Your task to perform on an android device: delete a single message in the gmail app Image 0: 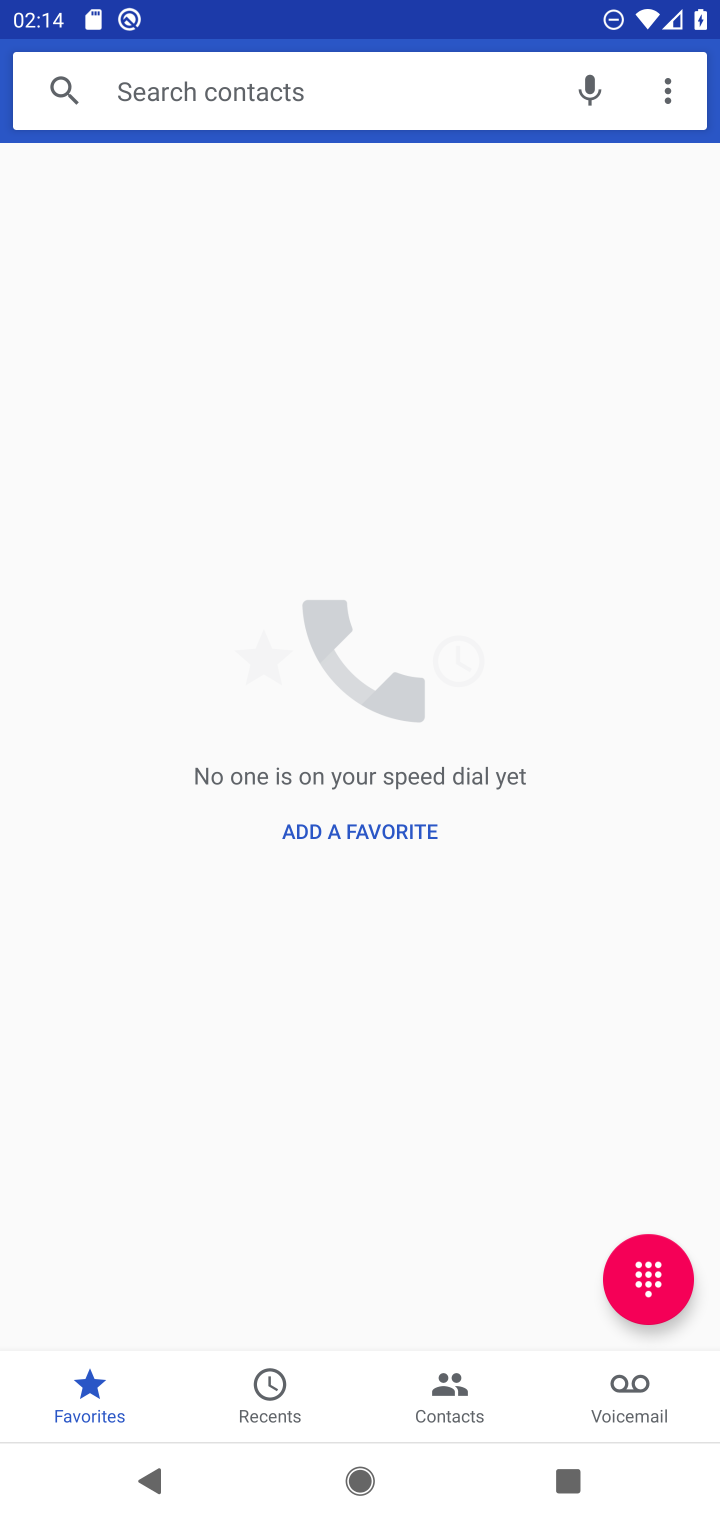
Step 0: press home button
Your task to perform on an android device: delete a single message in the gmail app Image 1: 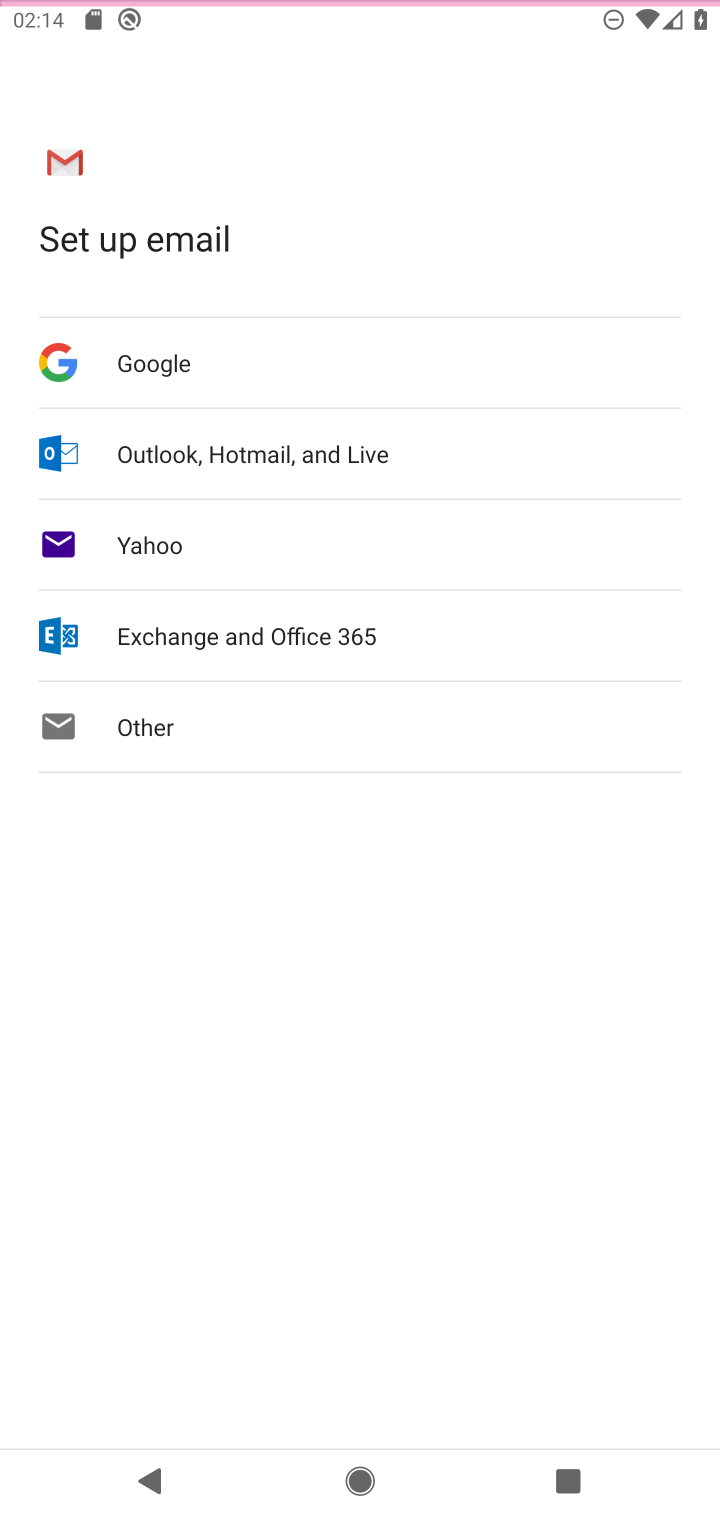
Step 1: press home button
Your task to perform on an android device: delete a single message in the gmail app Image 2: 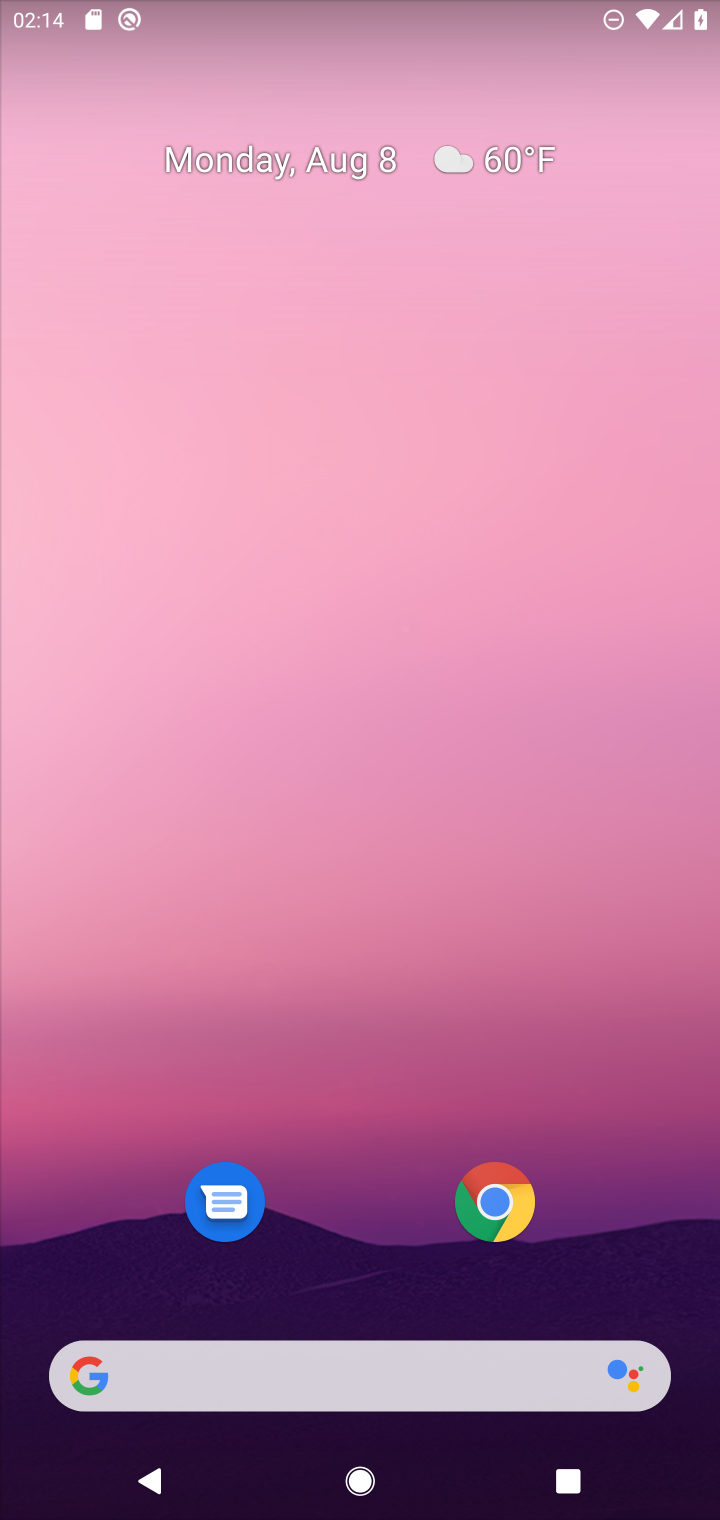
Step 2: drag from (636, 1088) to (657, 257)
Your task to perform on an android device: delete a single message in the gmail app Image 3: 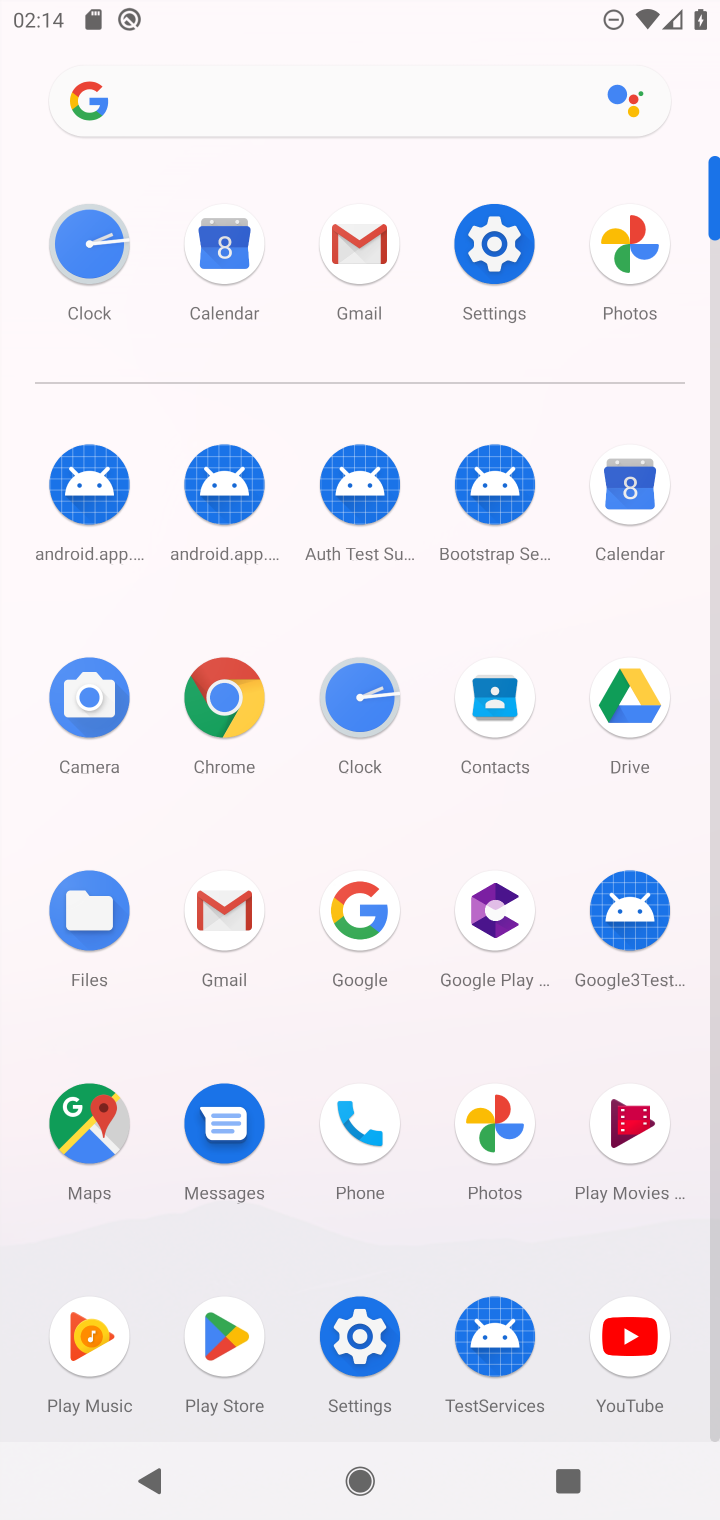
Step 3: click (227, 927)
Your task to perform on an android device: delete a single message in the gmail app Image 4: 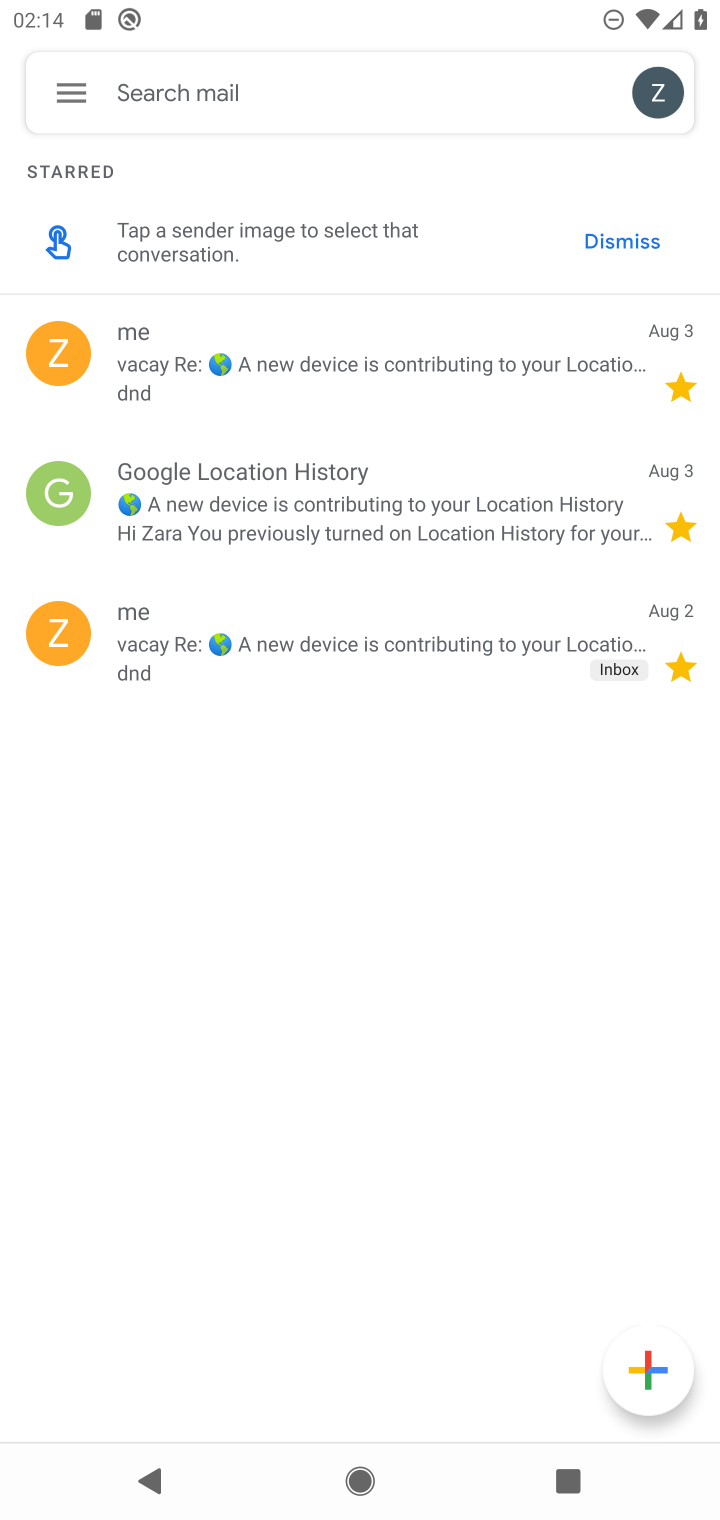
Step 4: click (403, 323)
Your task to perform on an android device: delete a single message in the gmail app Image 5: 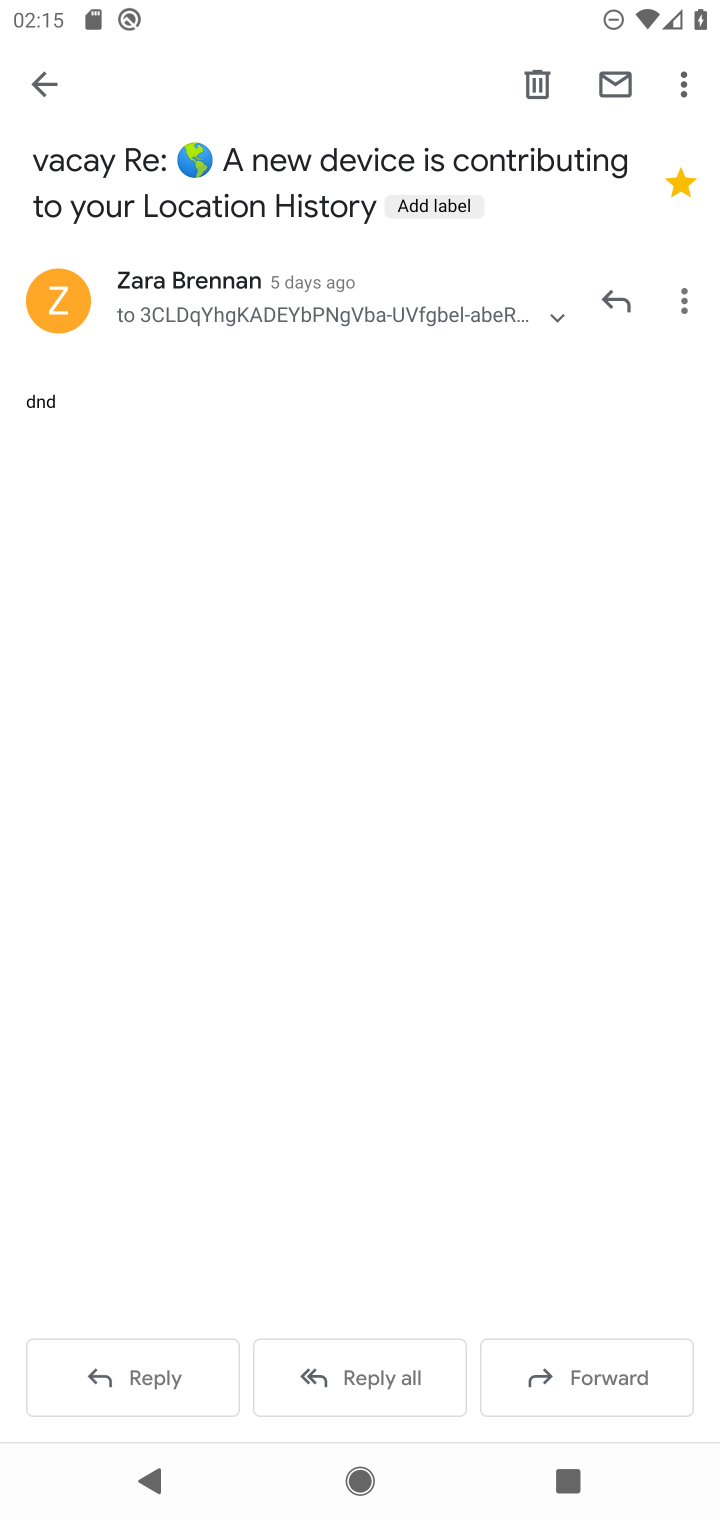
Step 5: click (534, 75)
Your task to perform on an android device: delete a single message in the gmail app Image 6: 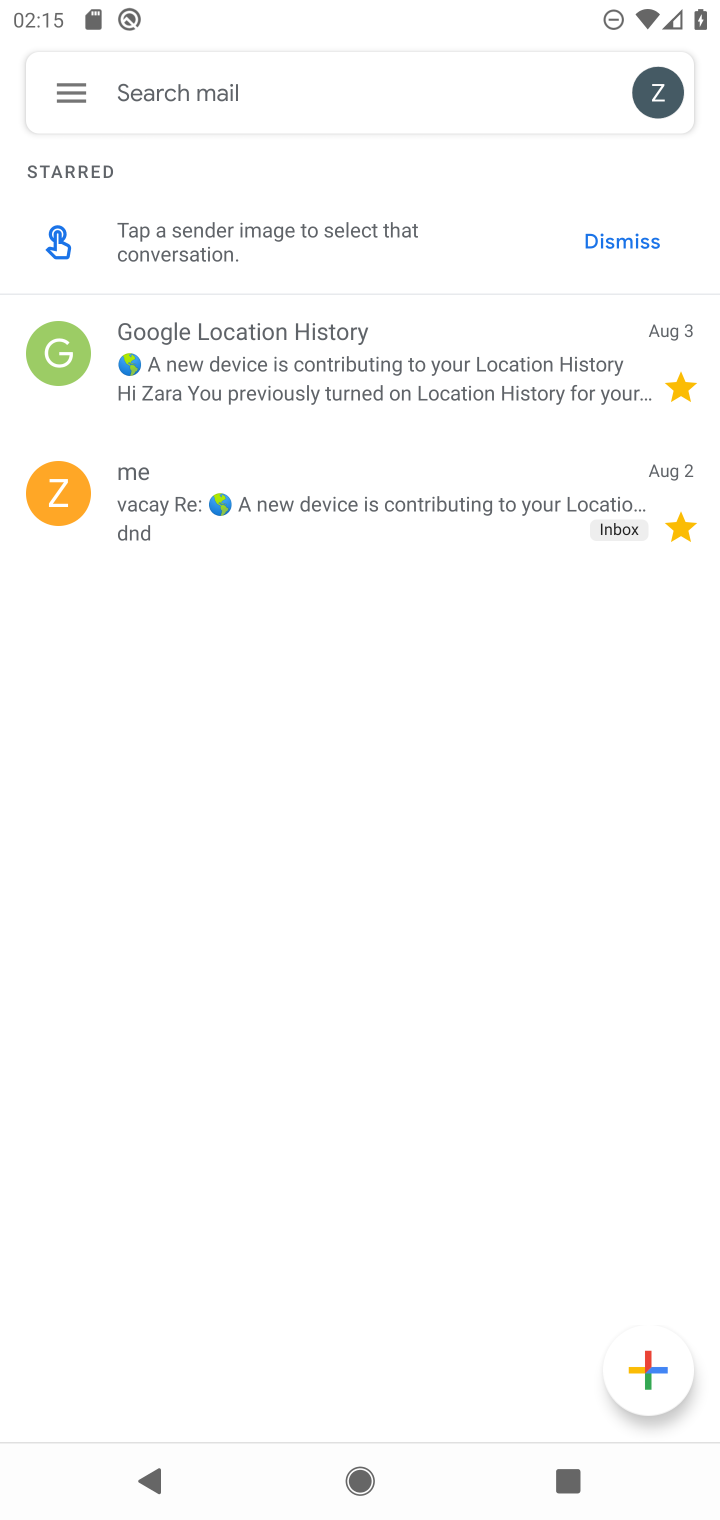
Step 6: task complete